Your task to perform on an android device: Do I have any events this weekend? Image 0: 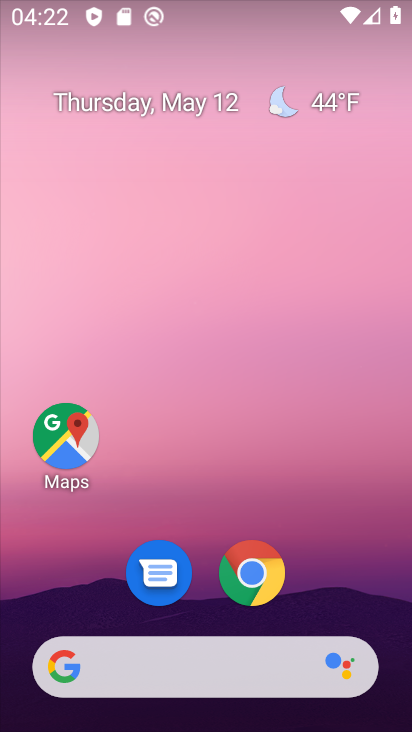
Step 0: drag from (393, 624) to (302, 96)
Your task to perform on an android device: Do I have any events this weekend? Image 1: 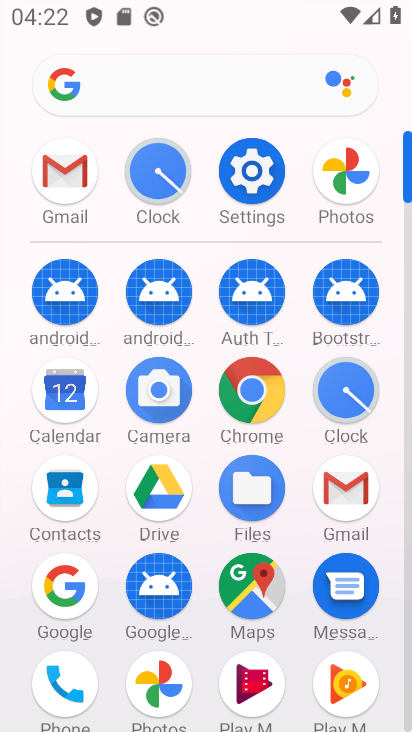
Step 1: click (65, 388)
Your task to perform on an android device: Do I have any events this weekend? Image 2: 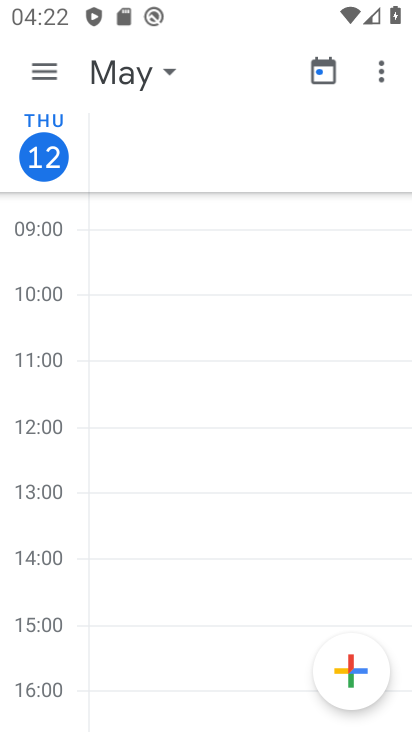
Step 2: click (36, 61)
Your task to perform on an android device: Do I have any events this weekend? Image 3: 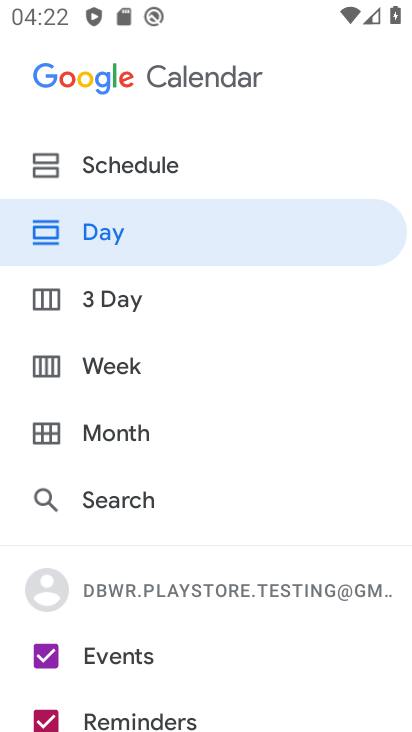
Step 3: click (117, 362)
Your task to perform on an android device: Do I have any events this weekend? Image 4: 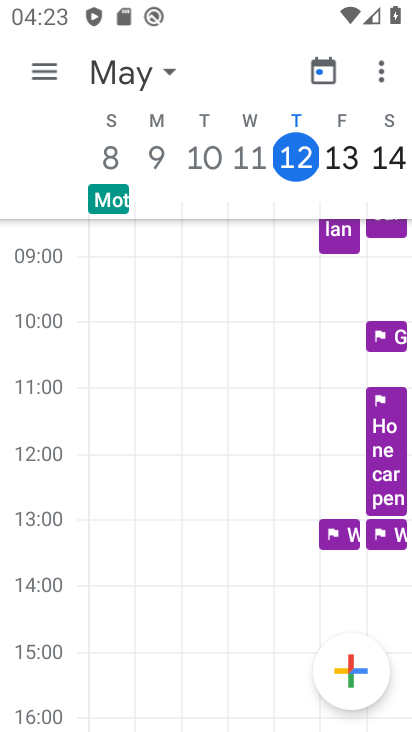
Step 4: task complete